Your task to perform on an android device: Show me productivity apps on the Play Store Image 0: 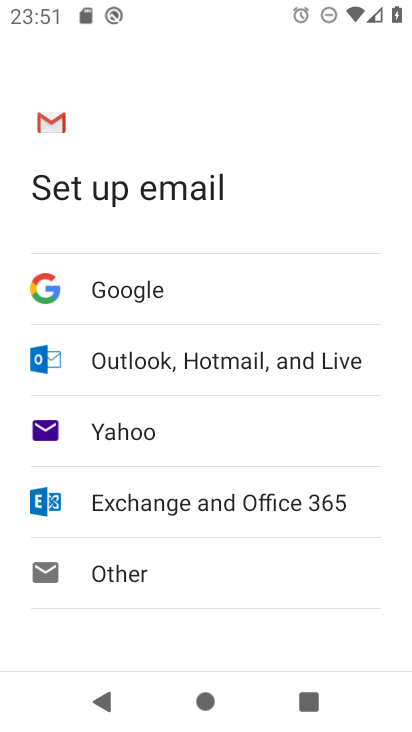
Step 0: press home button
Your task to perform on an android device: Show me productivity apps on the Play Store Image 1: 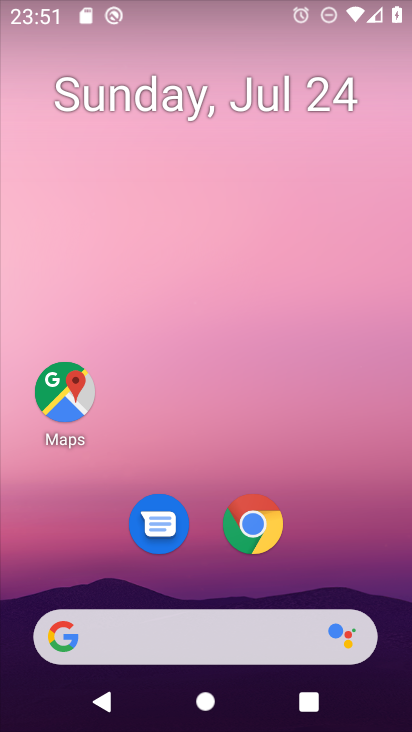
Step 1: drag from (175, 643) to (263, 175)
Your task to perform on an android device: Show me productivity apps on the Play Store Image 2: 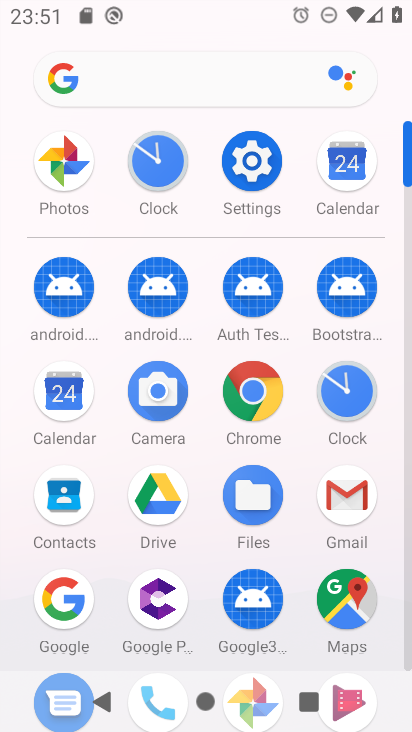
Step 2: drag from (213, 609) to (264, 189)
Your task to perform on an android device: Show me productivity apps on the Play Store Image 3: 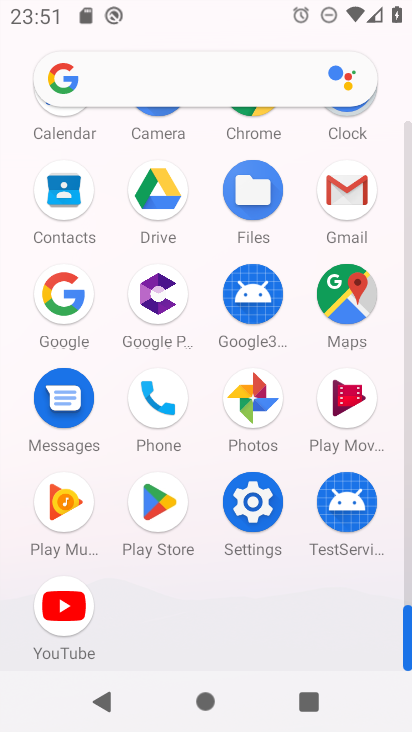
Step 3: click (156, 498)
Your task to perform on an android device: Show me productivity apps on the Play Store Image 4: 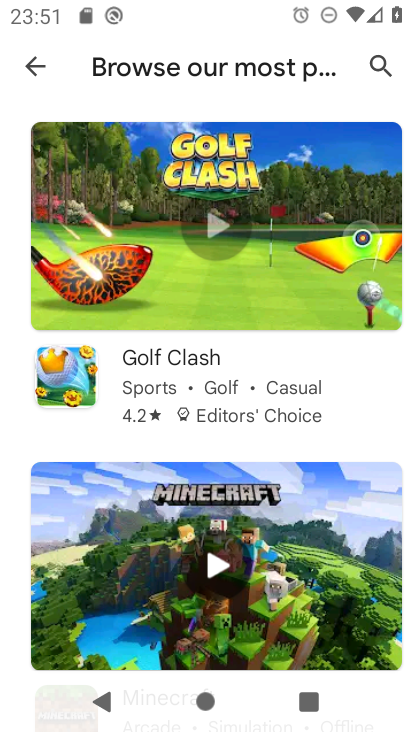
Step 4: click (21, 63)
Your task to perform on an android device: Show me productivity apps on the Play Store Image 5: 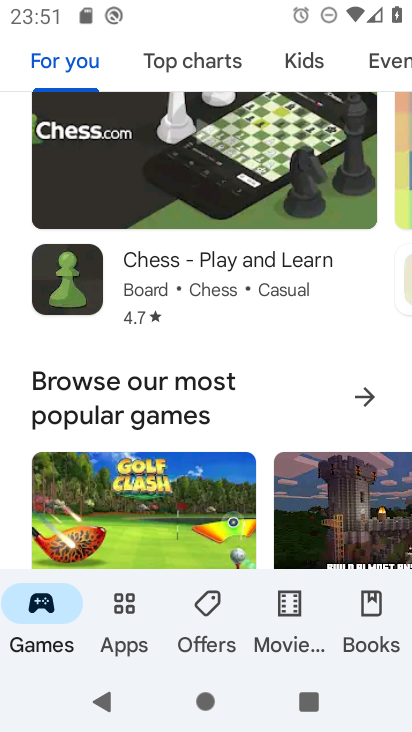
Step 5: click (120, 609)
Your task to perform on an android device: Show me productivity apps on the Play Store Image 6: 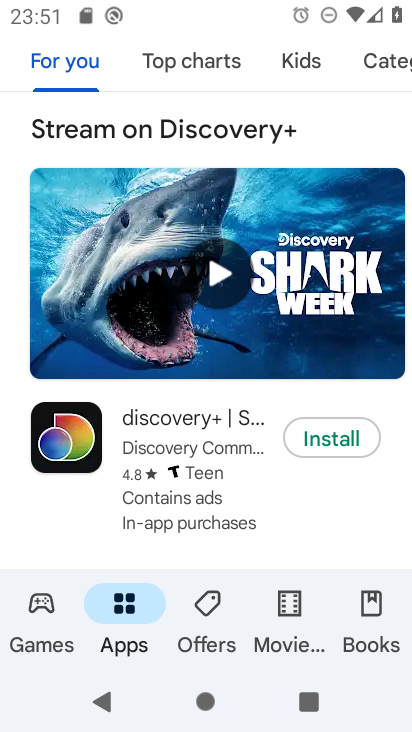
Step 6: click (382, 60)
Your task to perform on an android device: Show me productivity apps on the Play Store Image 7: 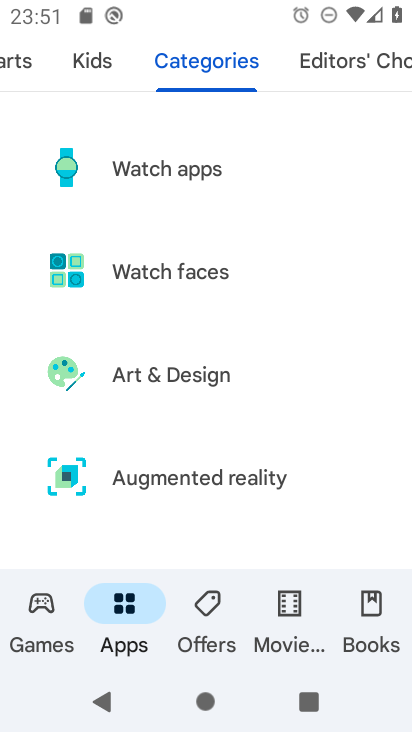
Step 7: drag from (308, 505) to (344, 70)
Your task to perform on an android device: Show me productivity apps on the Play Store Image 8: 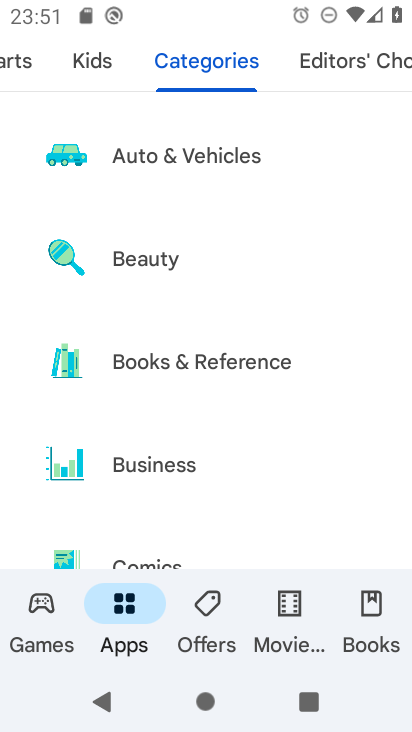
Step 8: drag from (308, 258) to (353, 134)
Your task to perform on an android device: Show me productivity apps on the Play Store Image 9: 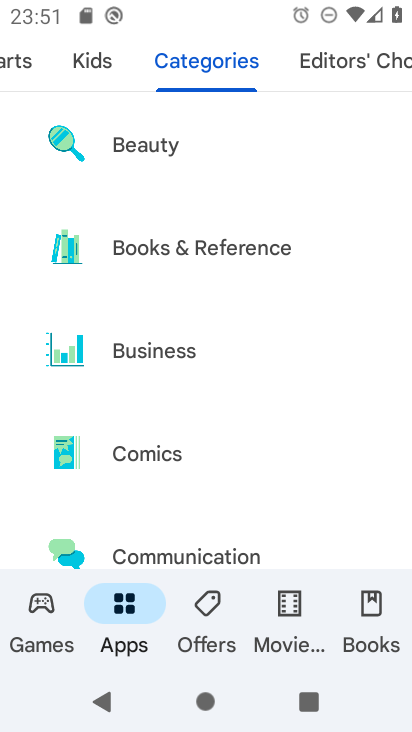
Step 9: drag from (265, 476) to (346, 58)
Your task to perform on an android device: Show me productivity apps on the Play Store Image 10: 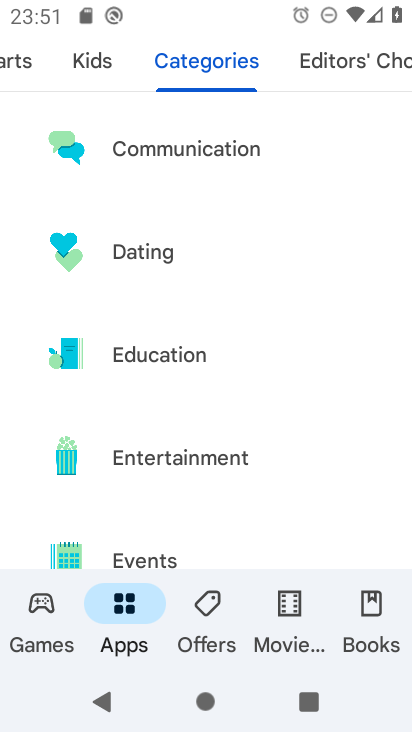
Step 10: drag from (232, 516) to (252, 85)
Your task to perform on an android device: Show me productivity apps on the Play Store Image 11: 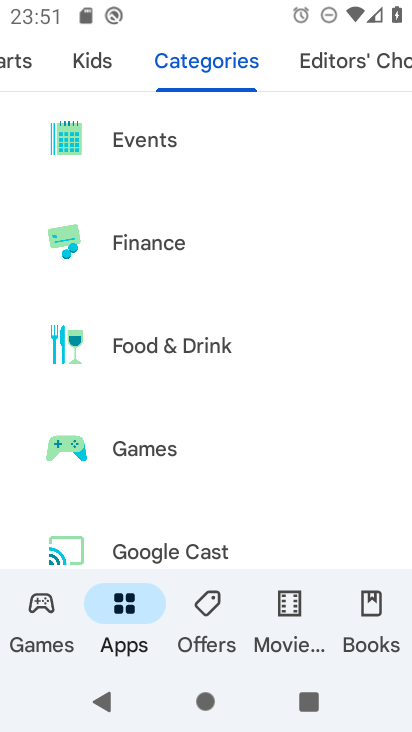
Step 11: drag from (235, 480) to (280, 86)
Your task to perform on an android device: Show me productivity apps on the Play Store Image 12: 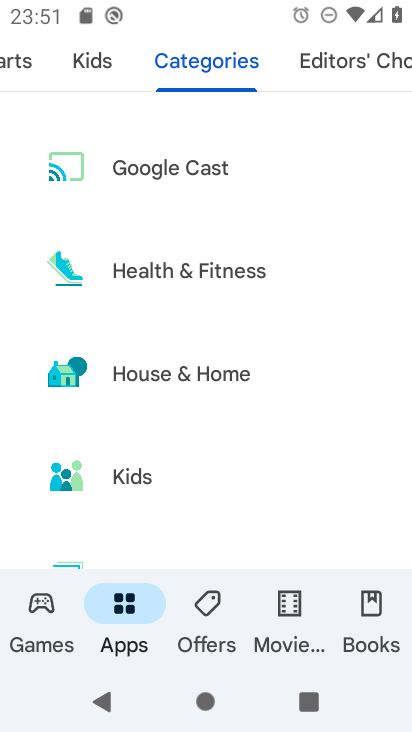
Step 12: drag from (224, 510) to (315, 125)
Your task to perform on an android device: Show me productivity apps on the Play Store Image 13: 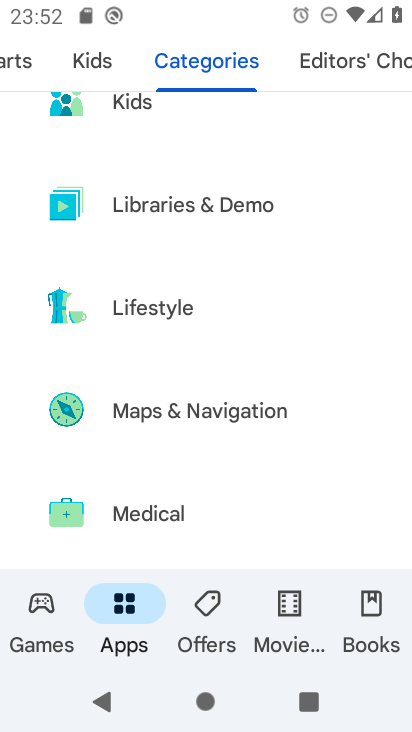
Step 13: drag from (266, 509) to (352, 82)
Your task to perform on an android device: Show me productivity apps on the Play Store Image 14: 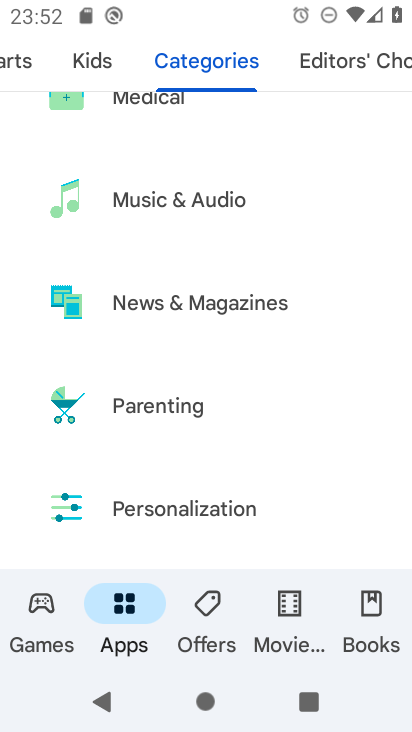
Step 14: drag from (261, 511) to (344, 162)
Your task to perform on an android device: Show me productivity apps on the Play Store Image 15: 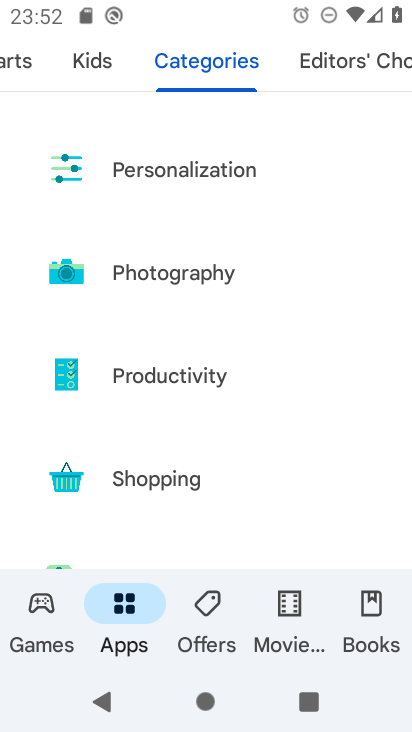
Step 15: click (167, 373)
Your task to perform on an android device: Show me productivity apps on the Play Store Image 16: 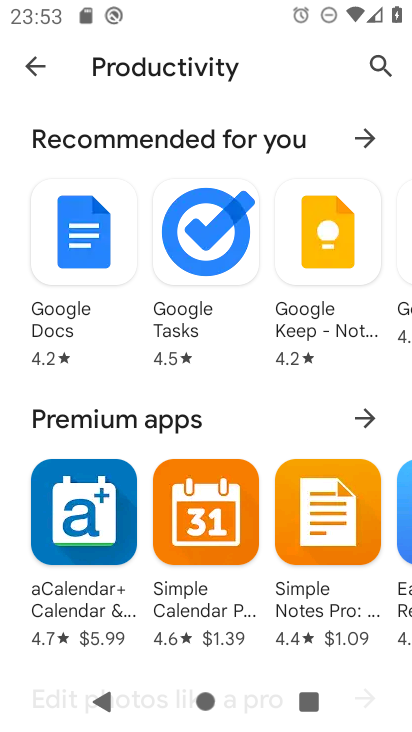
Step 16: task complete